Your task to perform on an android device: turn on sleep mode Image 0: 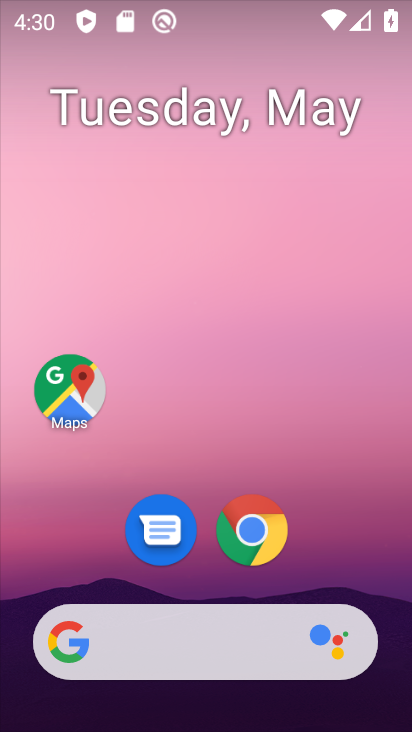
Step 0: drag from (113, 602) to (360, 50)
Your task to perform on an android device: turn on sleep mode Image 1: 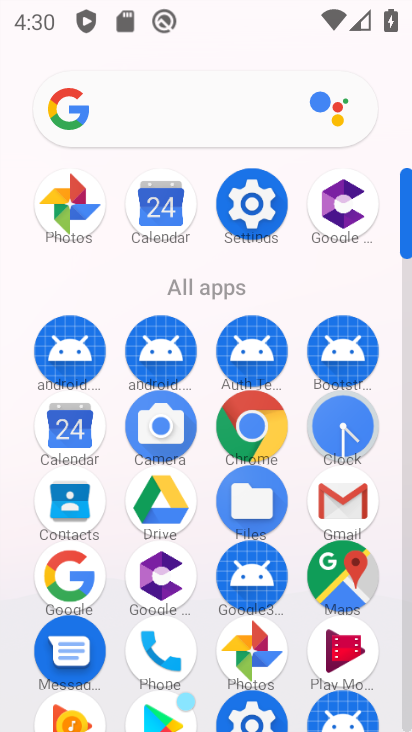
Step 1: click (248, 199)
Your task to perform on an android device: turn on sleep mode Image 2: 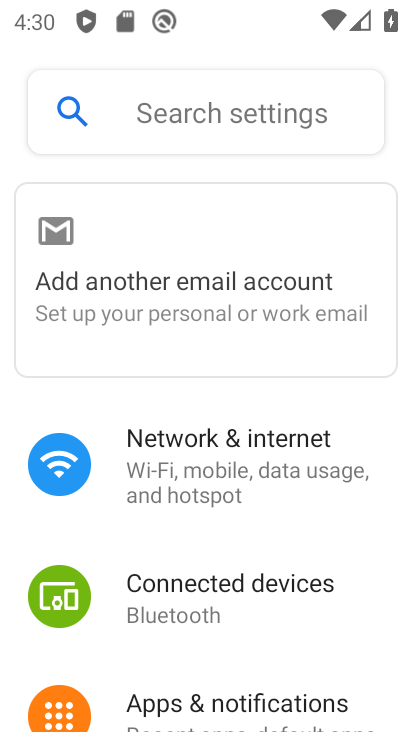
Step 2: drag from (242, 544) to (388, 210)
Your task to perform on an android device: turn on sleep mode Image 3: 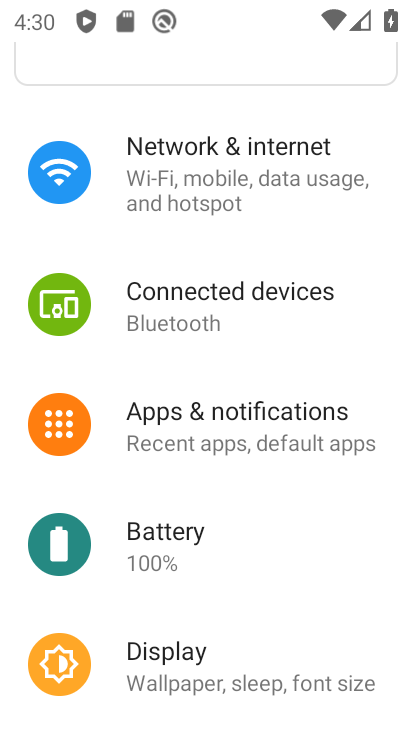
Step 3: click (191, 655)
Your task to perform on an android device: turn on sleep mode Image 4: 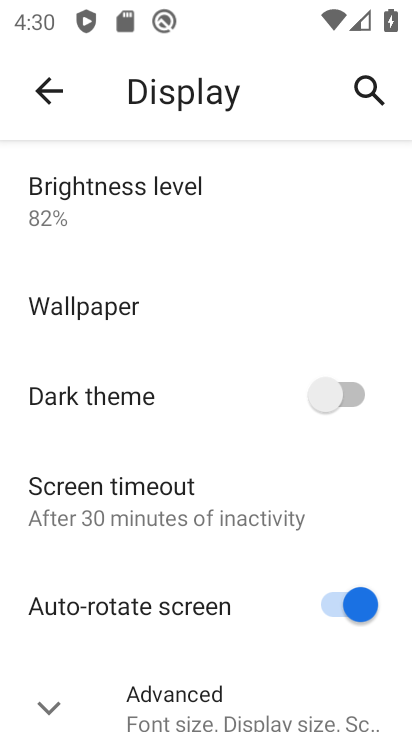
Step 4: drag from (156, 620) to (274, 248)
Your task to perform on an android device: turn on sleep mode Image 5: 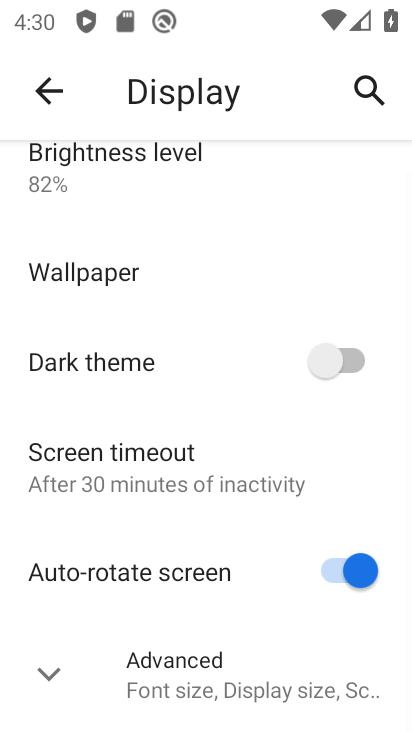
Step 5: click (176, 680)
Your task to perform on an android device: turn on sleep mode Image 6: 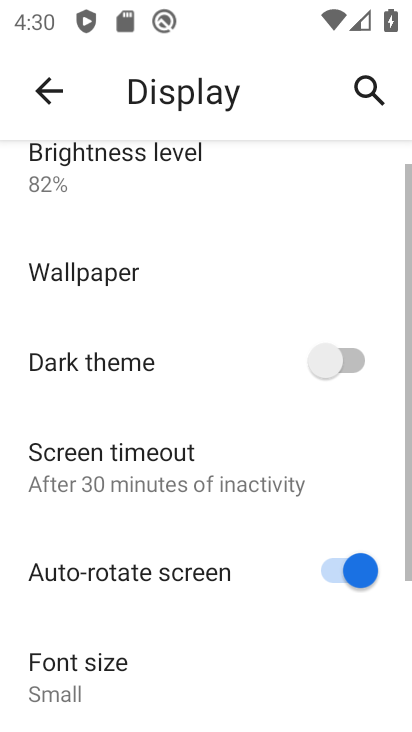
Step 6: task complete